Your task to perform on an android device: Go to ESPN.com Image 0: 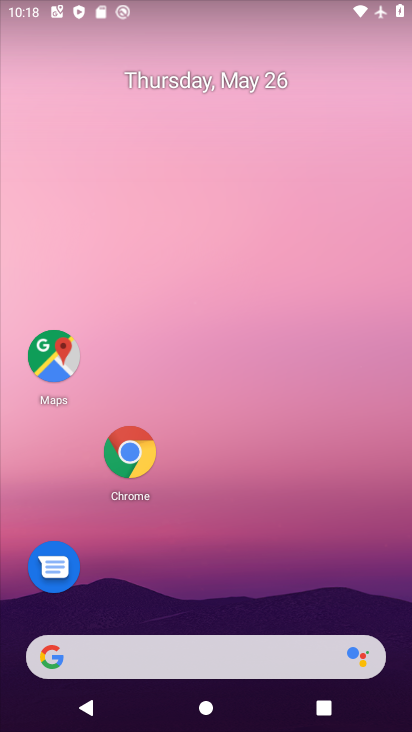
Step 0: click (127, 466)
Your task to perform on an android device: Go to ESPN.com Image 1: 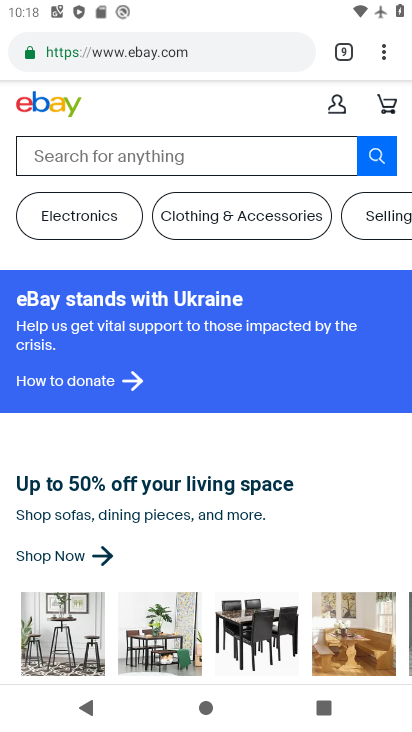
Step 1: drag from (381, 46) to (290, 110)
Your task to perform on an android device: Go to ESPN.com Image 2: 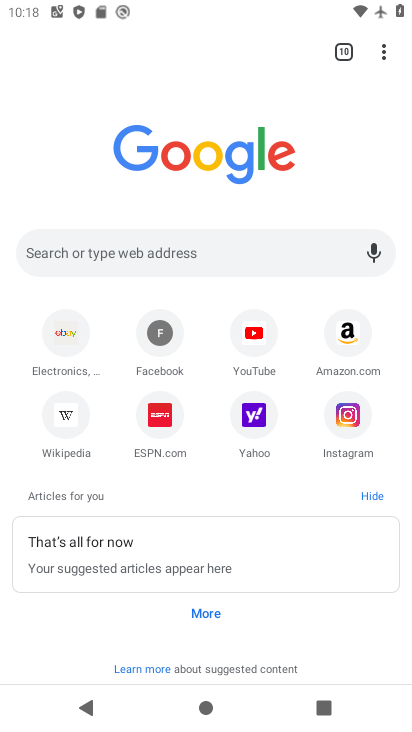
Step 2: click (157, 412)
Your task to perform on an android device: Go to ESPN.com Image 3: 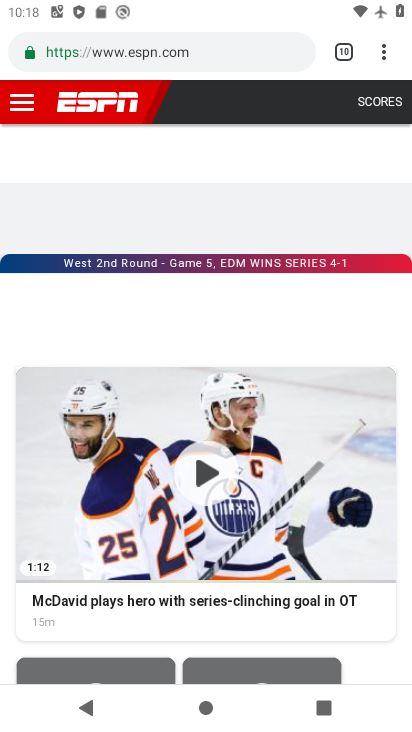
Step 3: task complete